Your task to perform on an android device: Go to privacy settings Image 0: 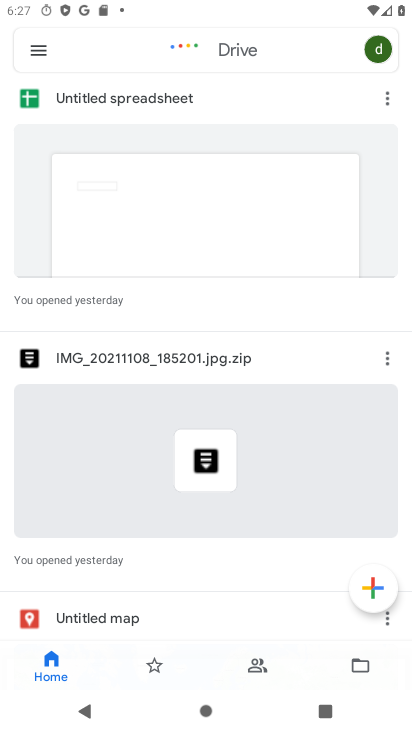
Step 0: press home button
Your task to perform on an android device: Go to privacy settings Image 1: 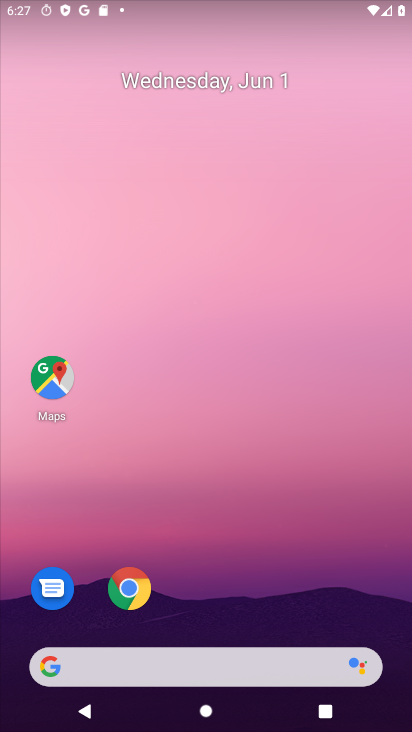
Step 1: drag from (191, 626) to (191, 288)
Your task to perform on an android device: Go to privacy settings Image 2: 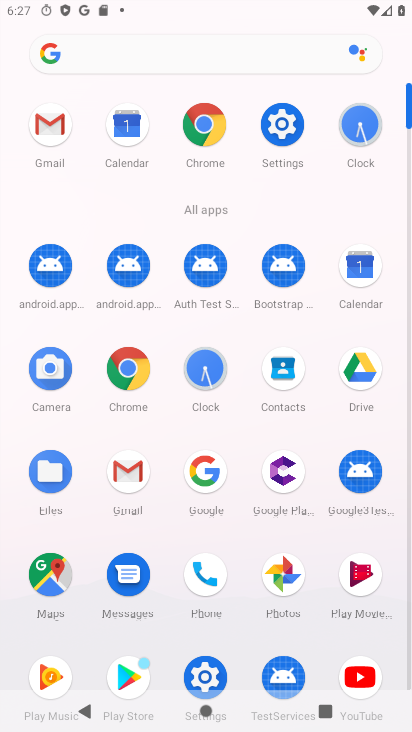
Step 2: click (282, 133)
Your task to perform on an android device: Go to privacy settings Image 3: 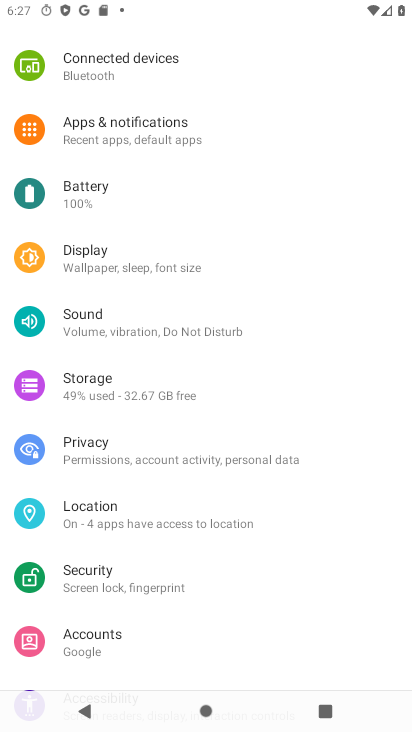
Step 3: click (58, 479)
Your task to perform on an android device: Go to privacy settings Image 4: 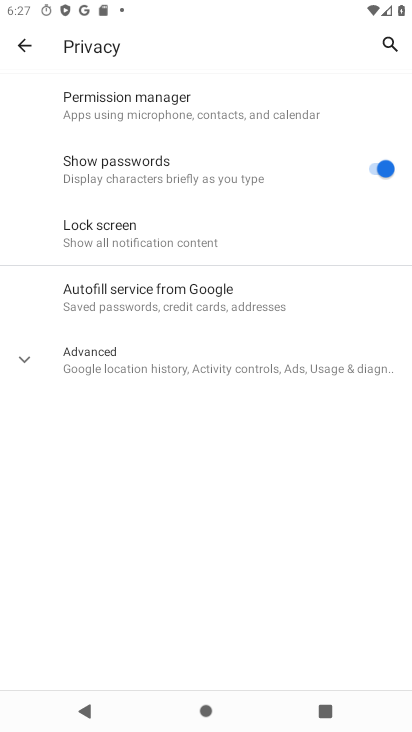
Step 4: task complete